Your task to perform on an android device: Open ESPN.com Image 0: 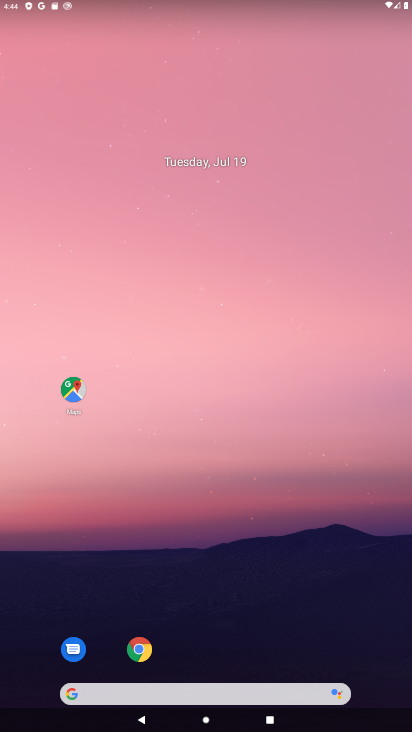
Step 0: click (141, 648)
Your task to perform on an android device: Open ESPN.com Image 1: 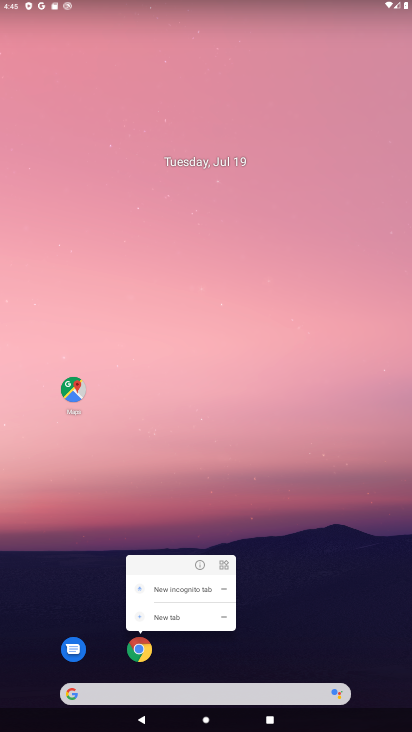
Step 1: click (137, 645)
Your task to perform on an android device: Open ESPN.com Image 2: 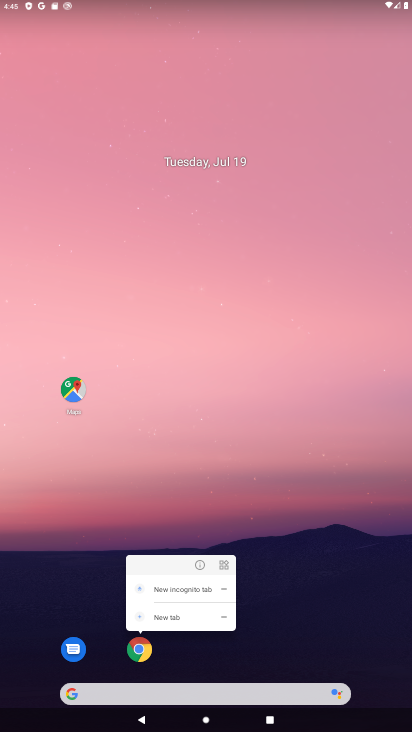
Step 2: click (136, 647)
Your task to perform on an android device: Open ESPN.com Image 3: 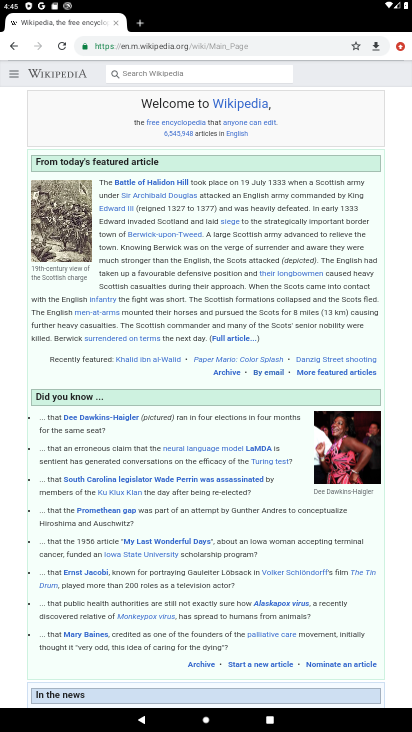
Step 3: click (140, 22)
Your task to perform on an android device: Open ESPN.com Image 4: 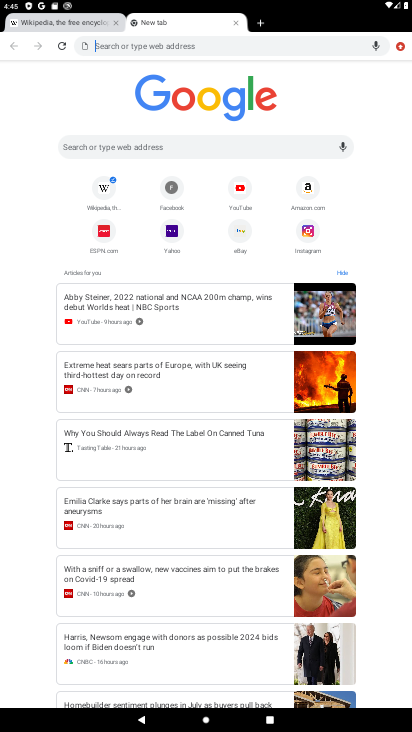
Step 4: click (99, 232)
Your task to perform on an android device: Open ESPN.com Image 5: 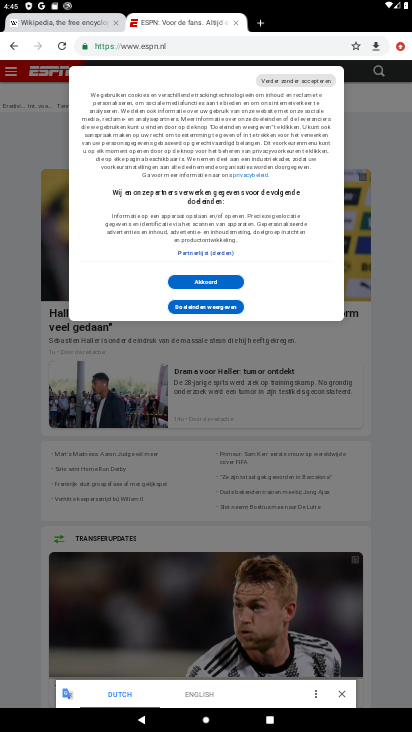
Step 5: task complete